Your task to perform on an android device: turn on improve location accuracy Image 0: 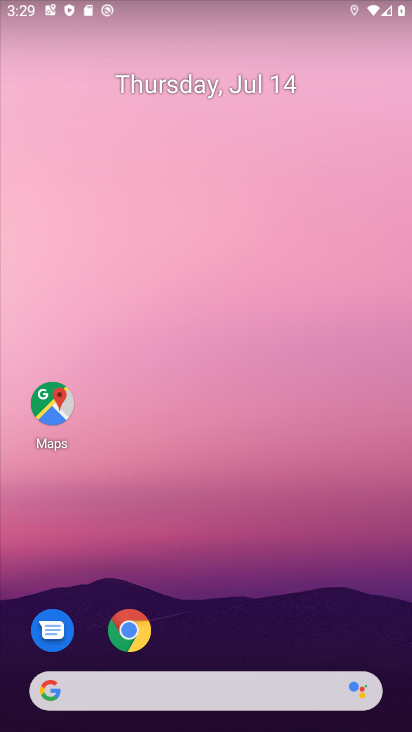
Step 0: drag from (294, 625) to (195, 171)
Your task to perform on an android device: turn on improve location accuracy Image 1: 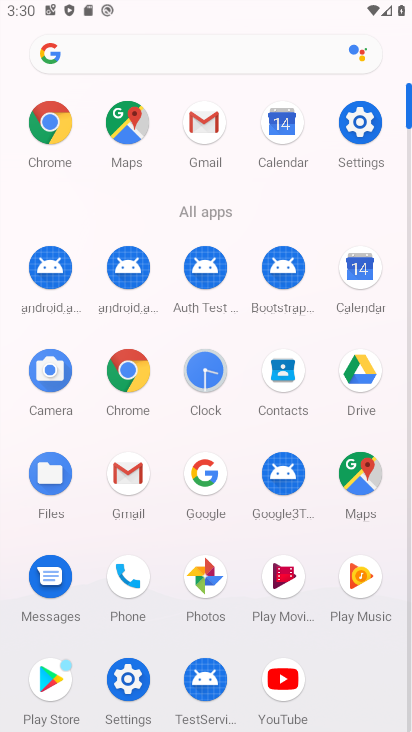
Step 1: click (368, 131)
Your task to perform on an android device: turn on improve location accuracy Image 2: 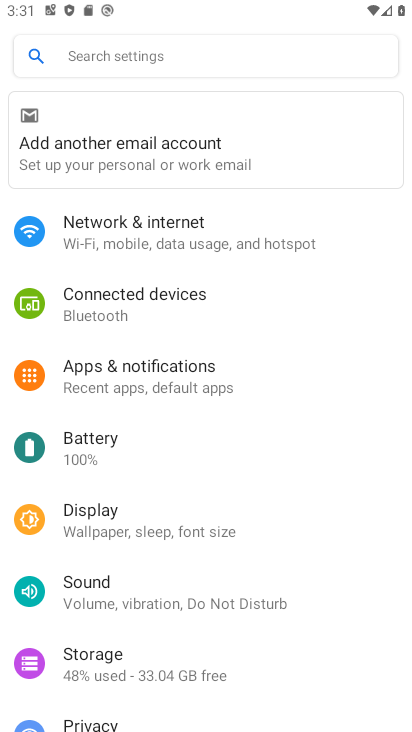
Step 2: drag from (246, 645) to (150, 289)
Your task to perform on an android device: turn on improve location accuracy Image 3: 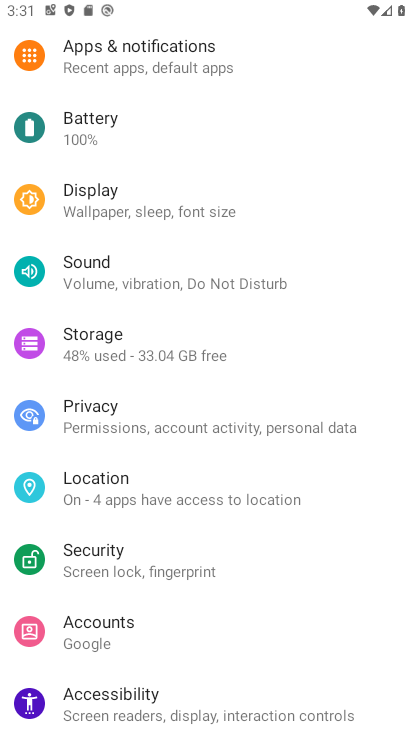
Step 3: click (117, 479)
Your task to perform on an android device: turn on improve location accuracy Image 4: 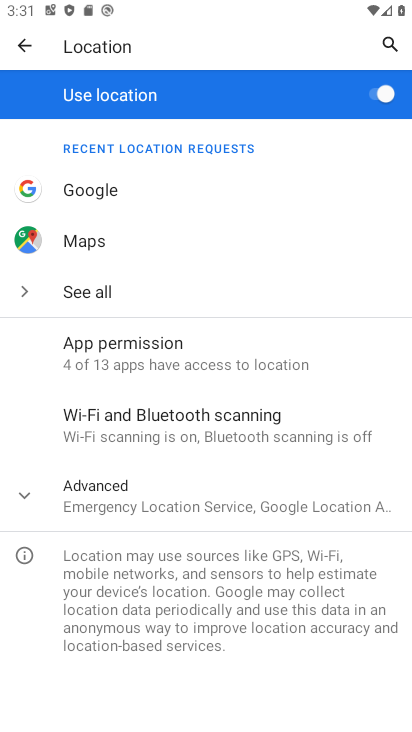
Step 4: click (242, 484)
Your task to perform on an android device: turn on improve location accuracy Image 5: 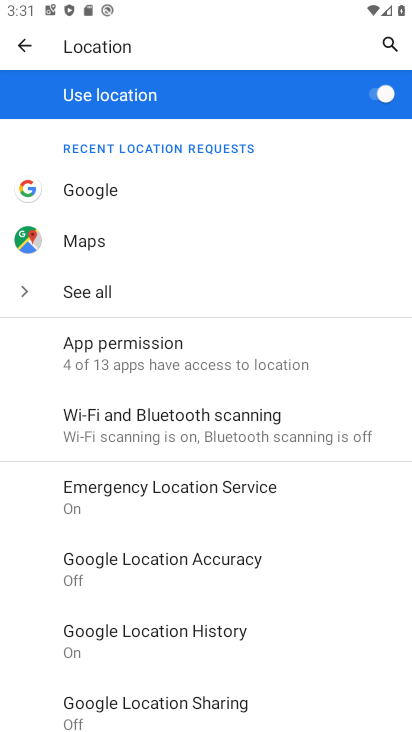
Step 5: click (247, 560)
Your task to perform on an android device: turn on improve location accuracy Image 6: 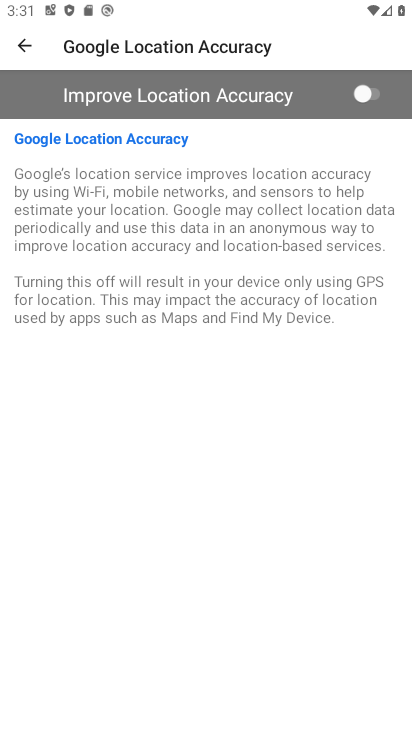
Step 6: click (384, 92)
Your task to perform on an android device: turn on improve location accuracy Image 7: 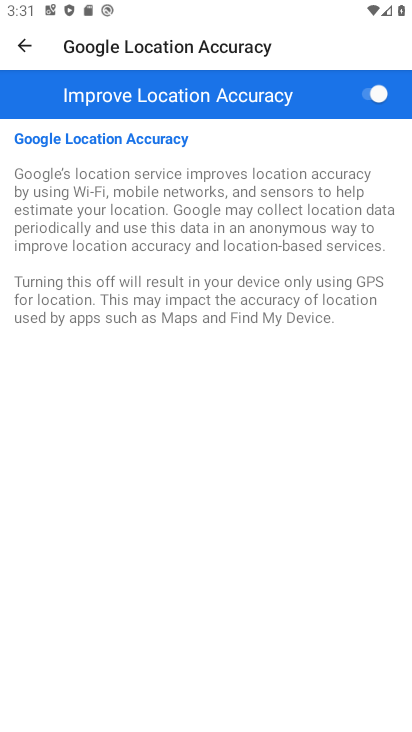
Step 7: task complete